Your task to perform on an android device: remove spam from my inbox in the gmail app Image 0: 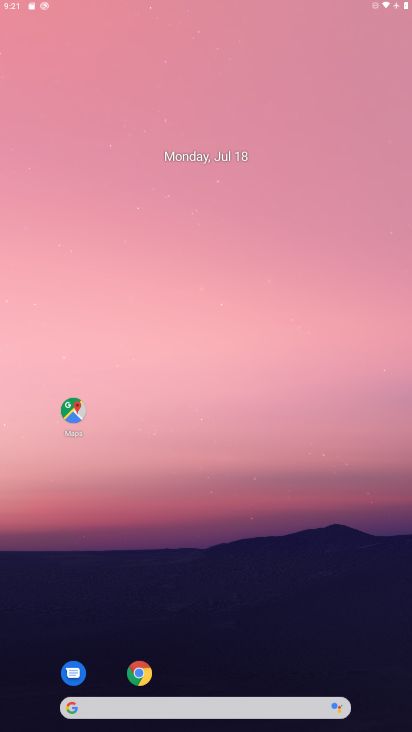
Step 0: press home button
Your task to perform on an android device: remove spam from my inbox in the gmail app Image 1: 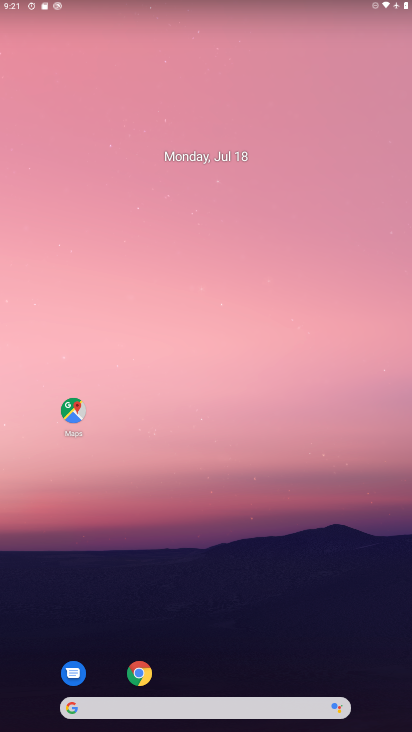
Step 1: drag from (242, 642) to (234, 104)
Your task to perform on an android device: remove spam from my inbox in the gmail app Image 2: 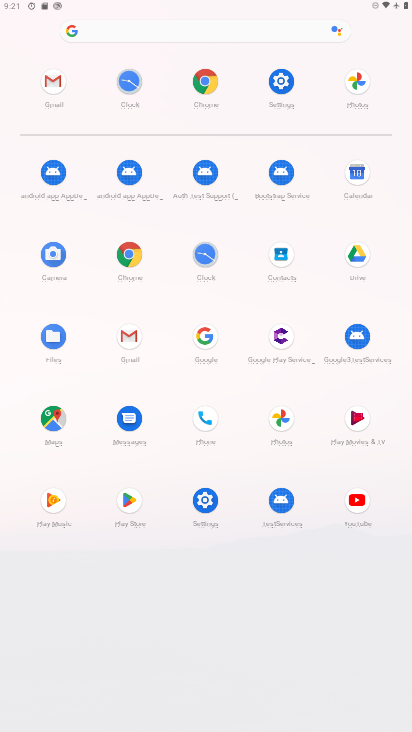
Step 2: click (133, 340)
Your task to perform on an android device: remove spam from my inbox in the gmail app Image 3: 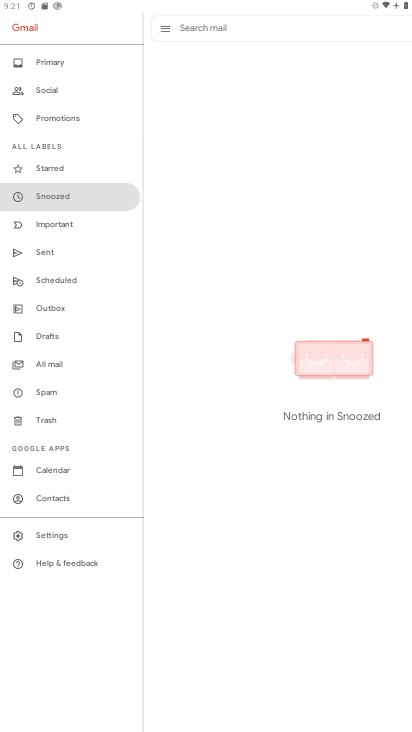
Step 3: click (51, 392)
Your task to perform on an android device: remove spam from my inbox in the gmail app Image 4: 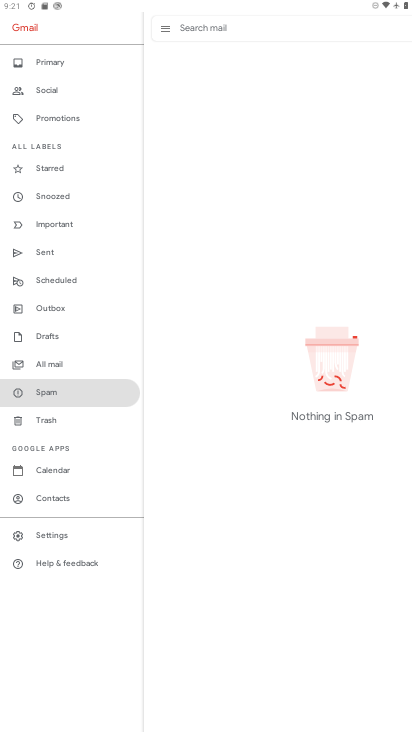
Step 4: task complete